Your task to perform on an android device: add a label to a message in the gmail app Image 0: 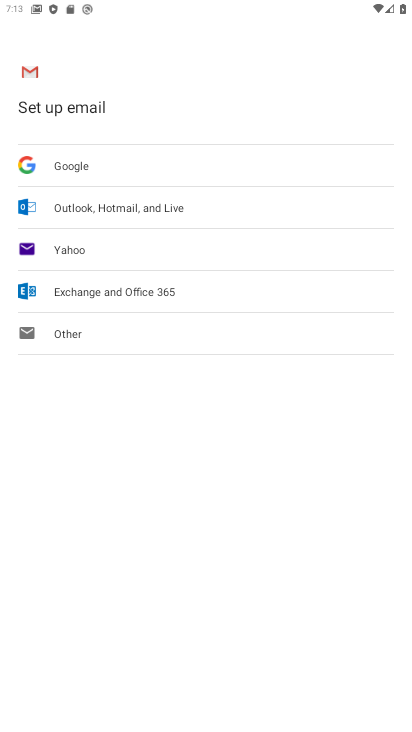
Step 0: press home button
Your task to perform on an android device: add a label to a message in the gmail app Image 1: 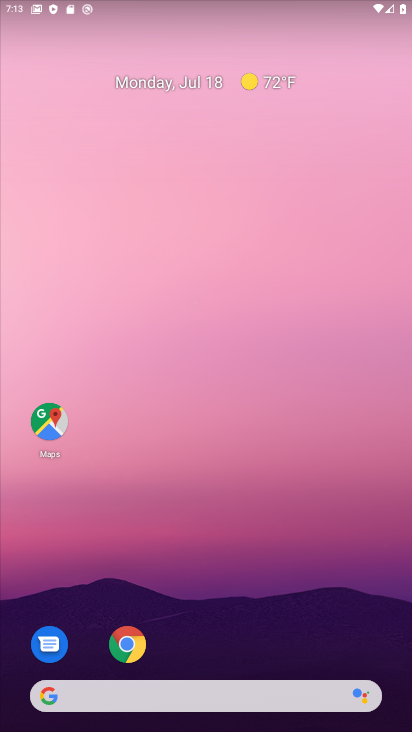
Step 1: drag from (392, 682) to (287, 145)
Your task to perform on an android device: add a label to a message in the gmail app Image 2: 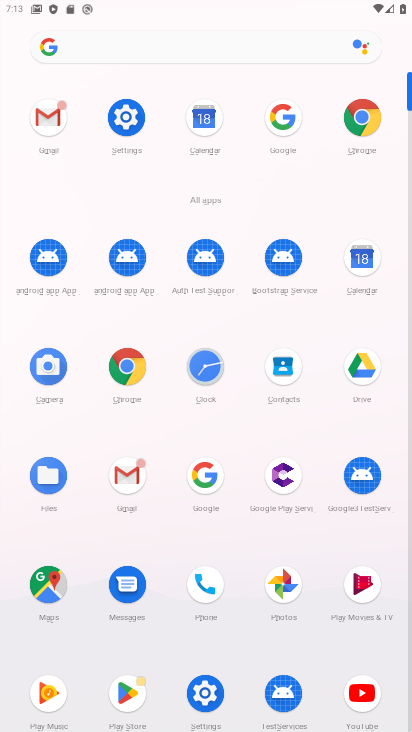
Step 2: click (123, 474)
Your task to perform on an android device: add a label to a message in the gmail app Image 3: 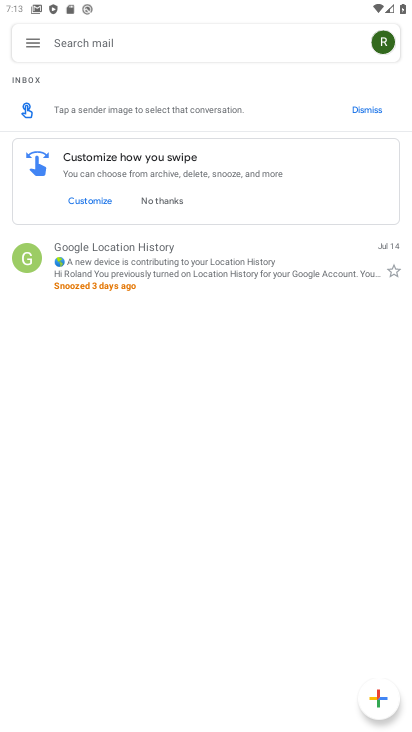
Step 3: task complete